Your task to perform on an android device: delete a single message in the gmail app Image 0: 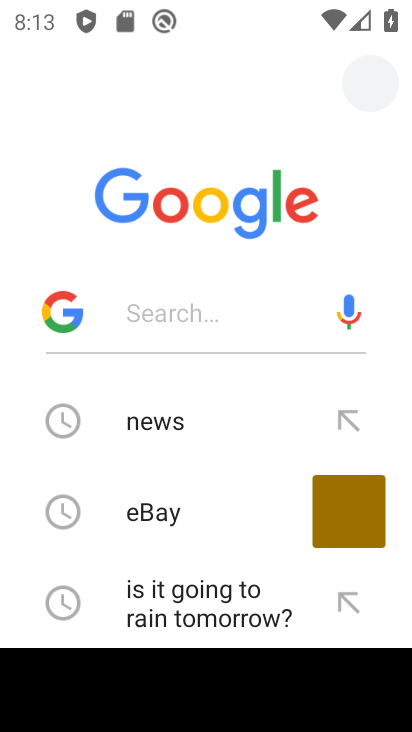
Step 0: press home button
Your task to perform on an android device: delete a single message in the gmail app Image 1: 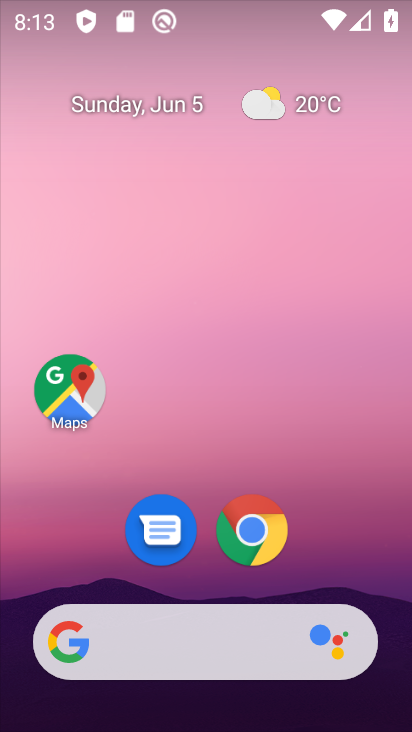
Step 1: drag from (382, 615) to (335, 111)
Your task to perform on an android device: delete a single message in the gmail app Image 2: 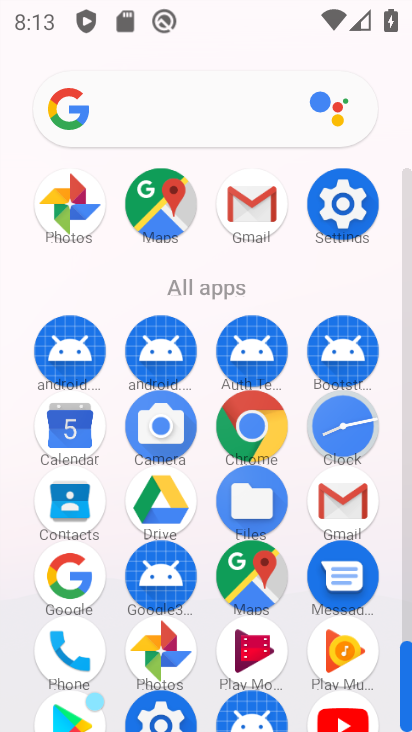
Step 2: click (338, 496)
Your task to perform on an android device: delete a single message in the gmail app Image 3: 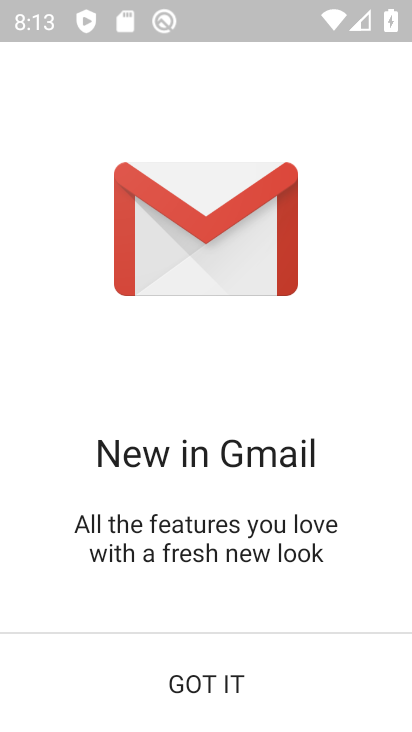
Step 3: click (214, 668)
Your task to perform on an android device: delete a single message in the gmail app Image 4: 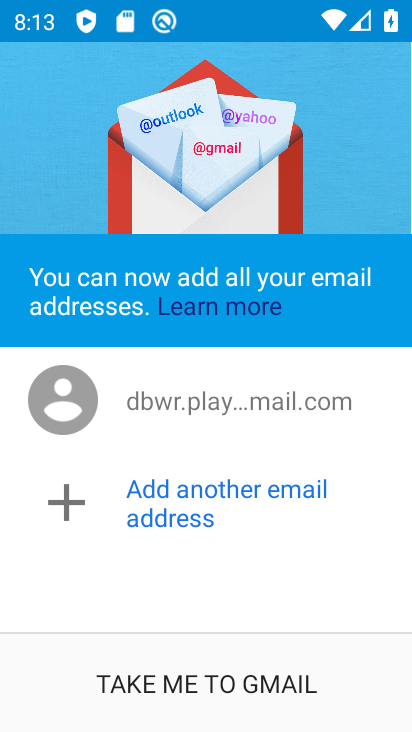
Step 4: click (214, 668)
Your task to perform on an android device: delete a single message in the gmail app Image 5: 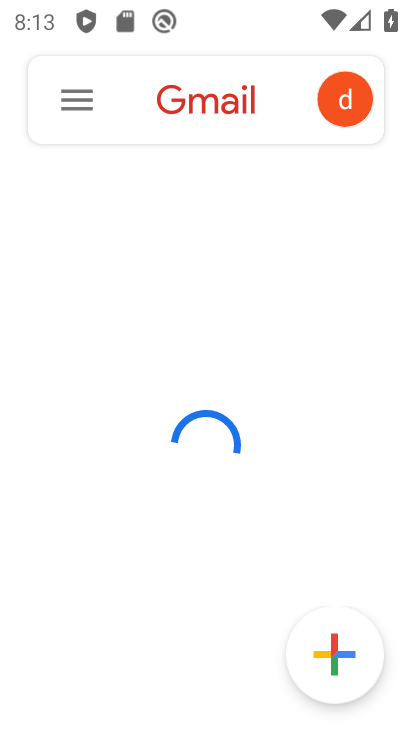
Step 5: click (75, 99)
Your task to perform on an android device: delete a single message in the gmail app Image 6: 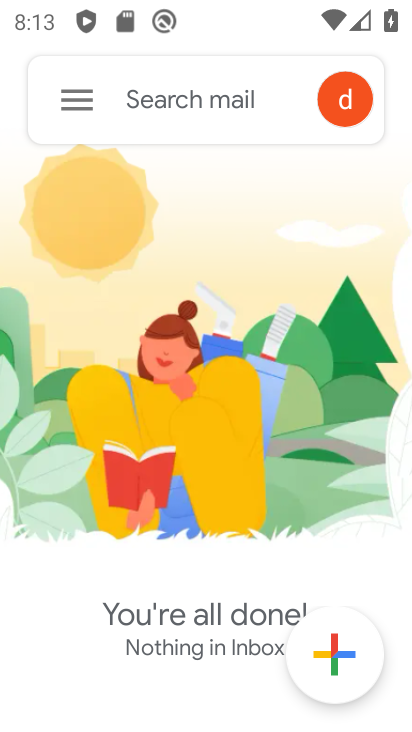
Step 6: click (75, 104)
Your task to perform on an android device: delete a single message in the gmail app Image 7: 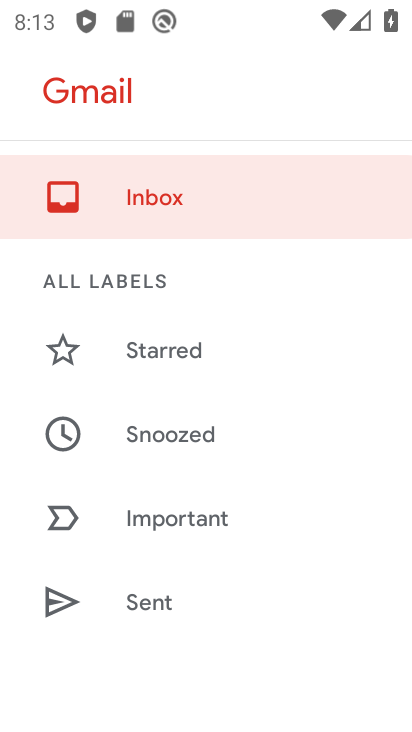
Step 7: drag from (237, 605) to (276, 74)
Your task to perform on an android device: delete a single message in the gmail app Image 8: 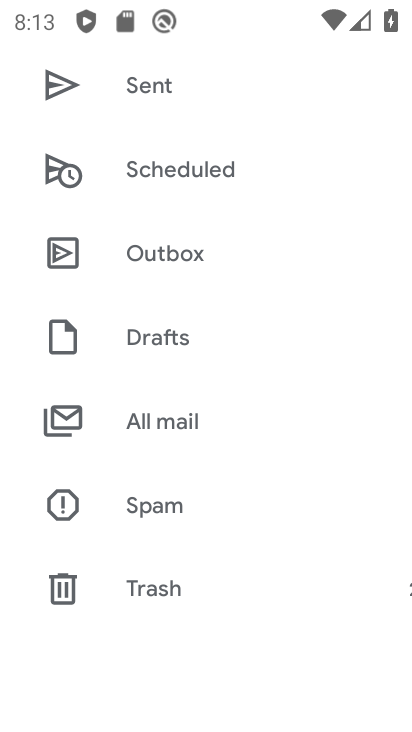
Step 8: click (165, 438)
Your task to perform on an android device: delete a single message in the gmail app Image 9: 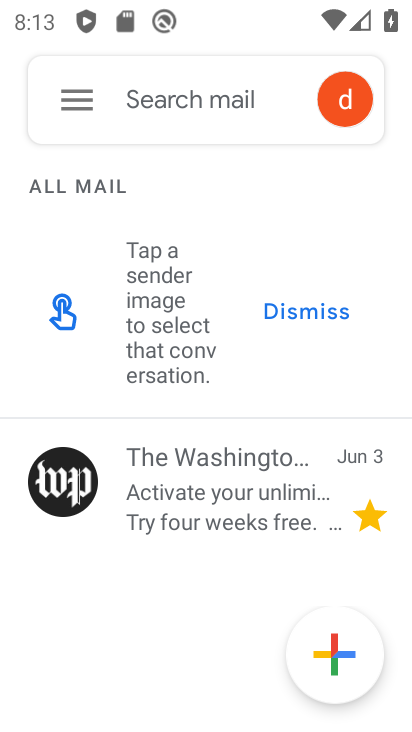
Step 9: click (239, 484)
Your task to perform on an android device: delete a single message in the gmail app Image 10: 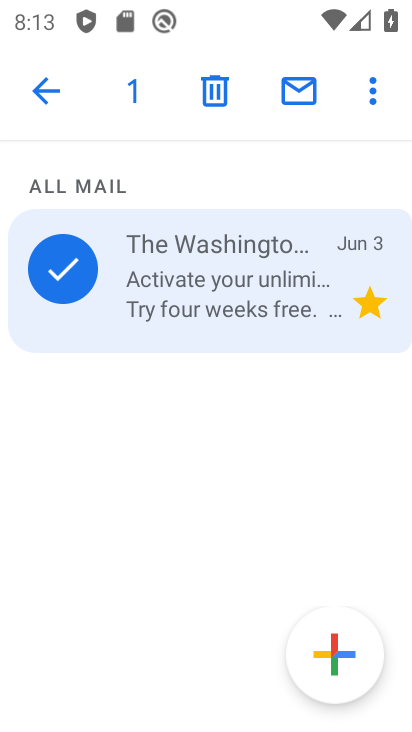
Step 10: click (217, 93)
Your task to perform on an android device: delete a single message in the gmail app Image 11: 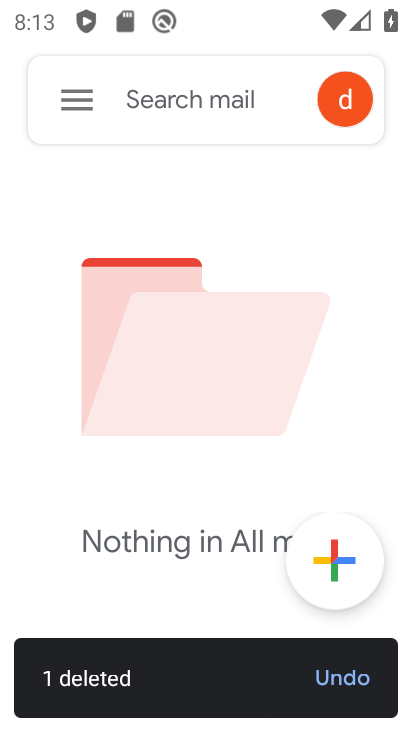
Step 11: task complete